Your task to perform on an android device: turn on bluetooth scan Image 0: 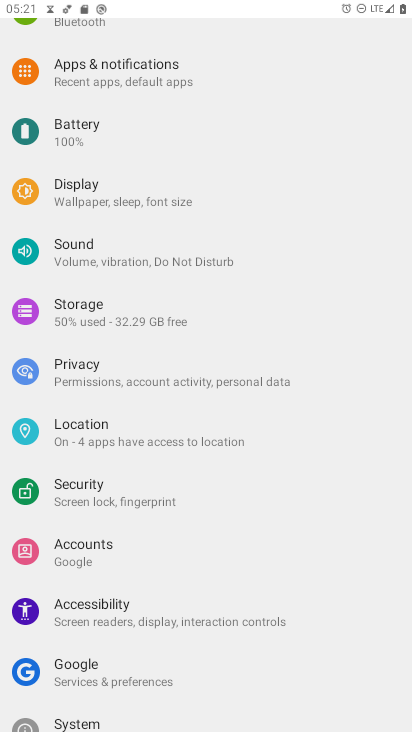
Step 0: press home button
Your task to perform on an android device: turn on bluetooth scan Image 1: 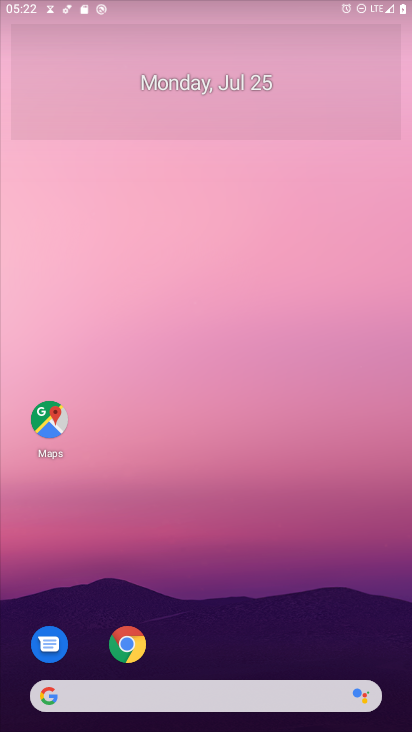
Step 1: drag from (277, 575) to (207, 144)
Your task to perform on an android device: turn on bluetooth scan Image 2: 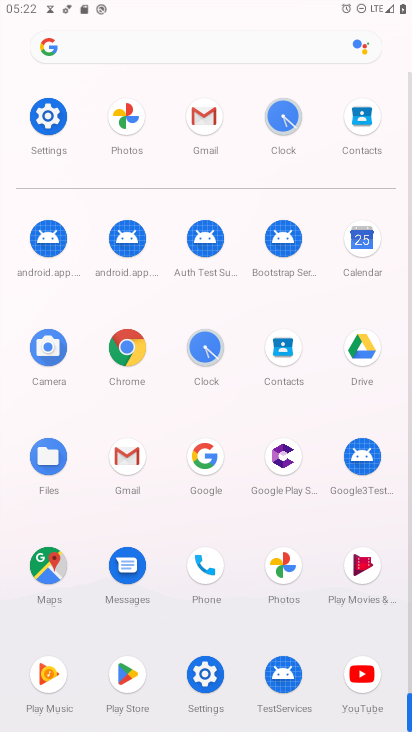
Step 2: click (49, 116)
Your task to perform on an android device: turn on bluetooth scan Image 3: 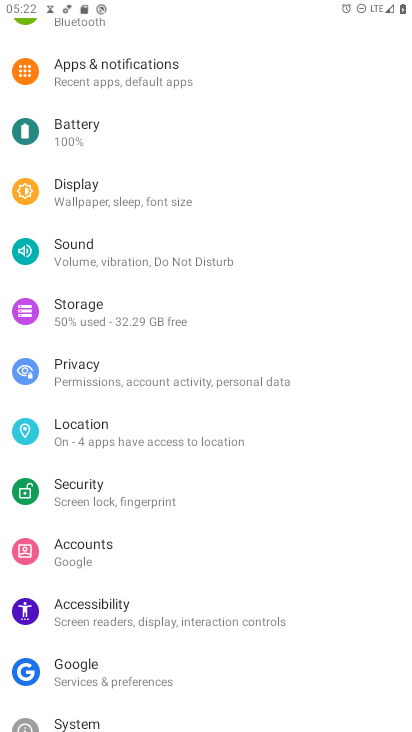
Step 3: drag from (155, 39) to (179, 262)
Your task to perform on an android device: turn on bluetooth scan Image 4: 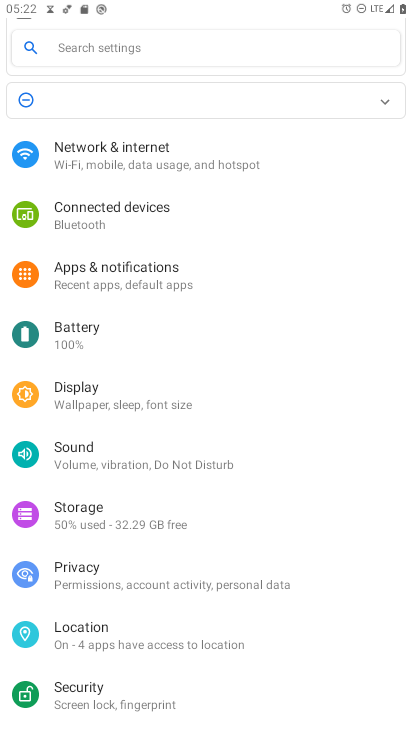
Step 4: click (197, 643)
Your task to perform on an android device: turn on bluetooth scan Image 5: 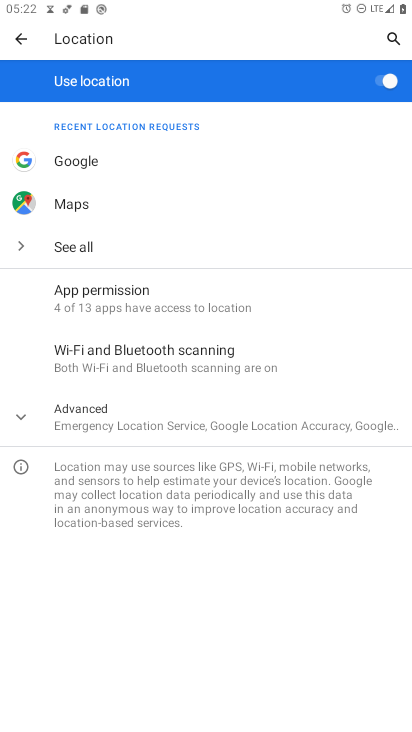
Step 5: click (176, 351)
Your task to perform on an android device: turn on bluetooth scan Image 6: 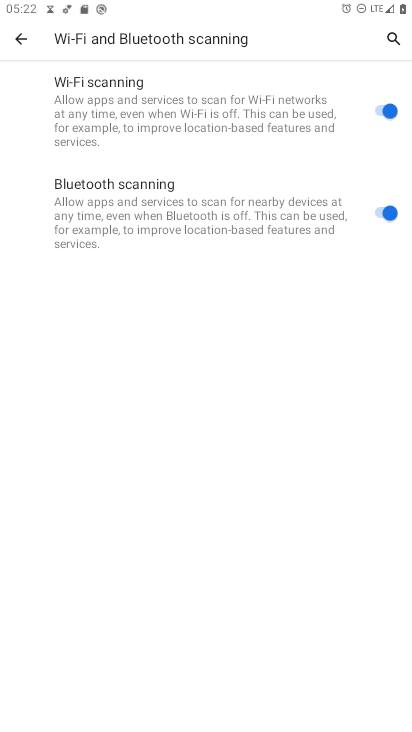
Step 6: task complete